Your task to perform on an android device: turn off improve location accuracy Image 0: 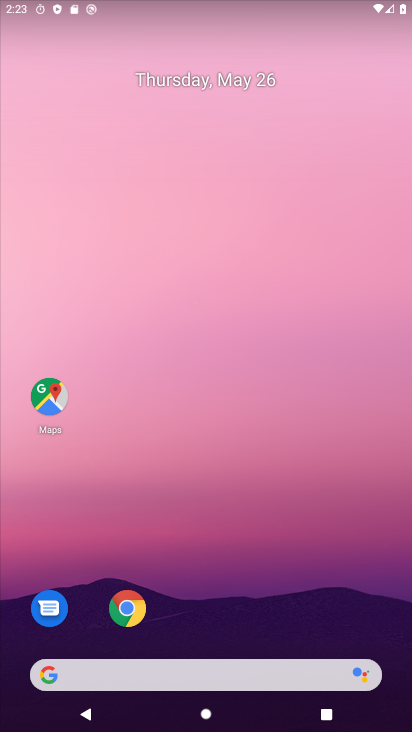
Step 0: drag from (263, 699) to (207, 150)
Your task to perform on an android device: turn off improve location accuracy Image 1: 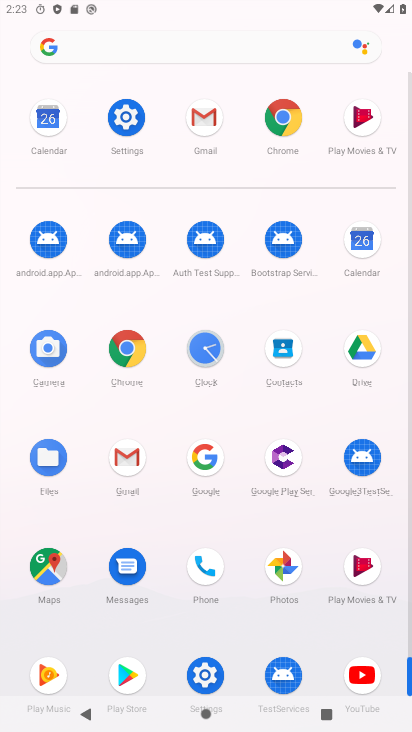
Step 1: click (120, 123)
Your task to perform on an android device: turn off improve location accuracy Image 2: 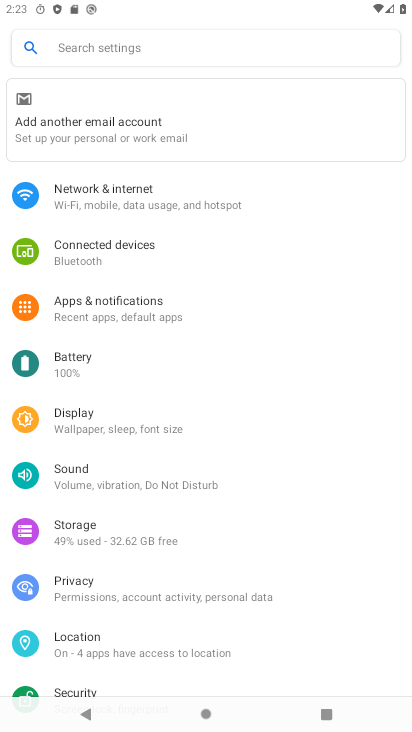
Step 2: click (91, 643)
Your task to perform on an android device: turn off improve location accuracy Image 3: 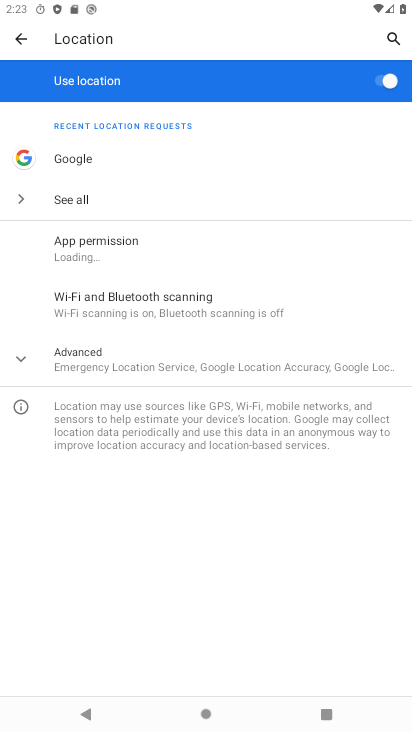
Step 3: click (79, 358)
Your task to perform on an android device: turn off improve location accuracy Image 4: 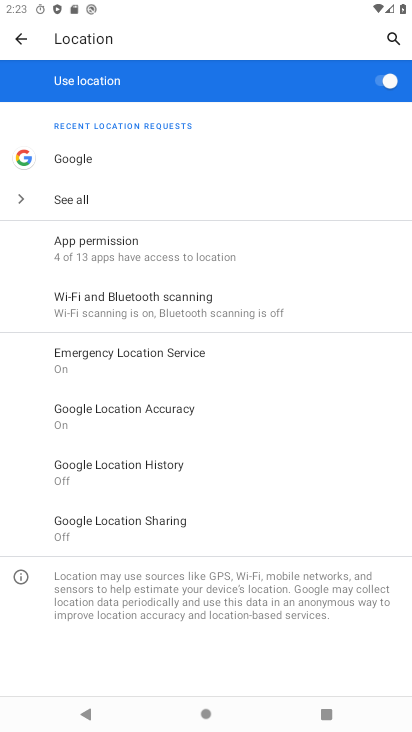
Step 4: click (118, 415)
Your task to perform on an android device: turn off improve location accuracy Image 5: 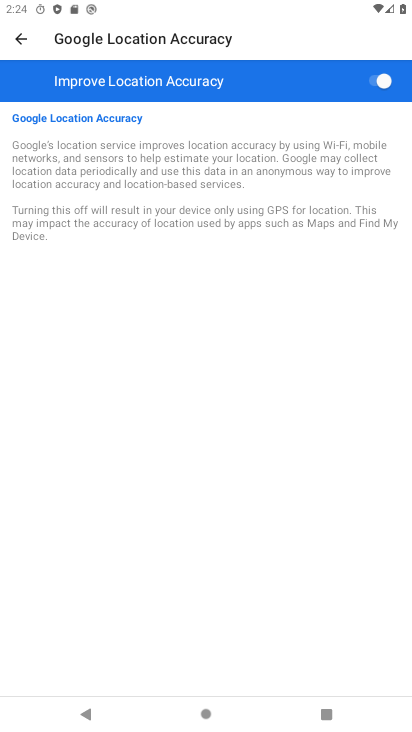
Step 5: click (382, 80)
Your task to perform on an android device: turn off improve location accuracy Image 6: 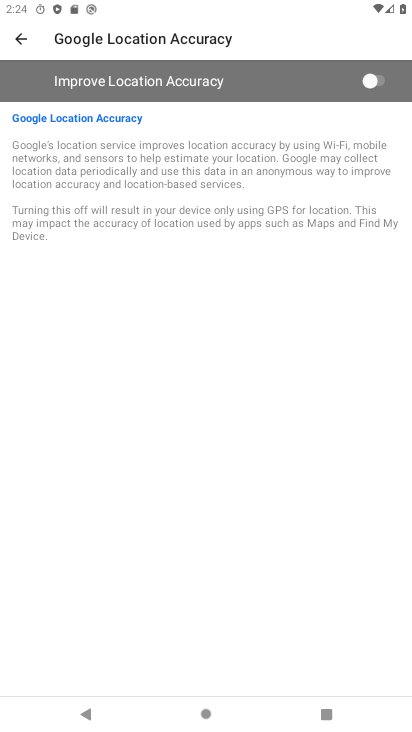
Step 6: task complete